Your task to perform on an android device: change your default location settings in chrome Image 0: 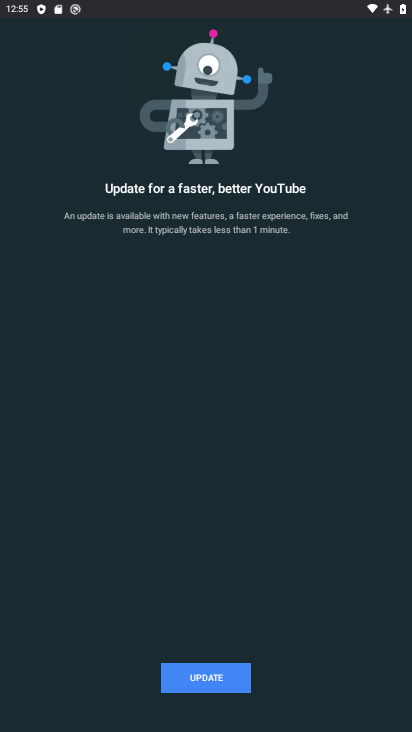
Step 0: press back button
Your task to perform on an android device: change your default location settings in chrome Image 1: 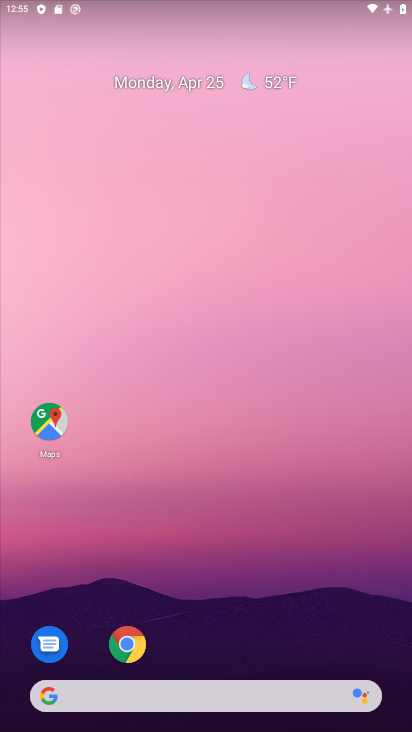
Step 1: click (131, 650)
Your task to perform on an android device: change your default location settings in chrome Image 2: 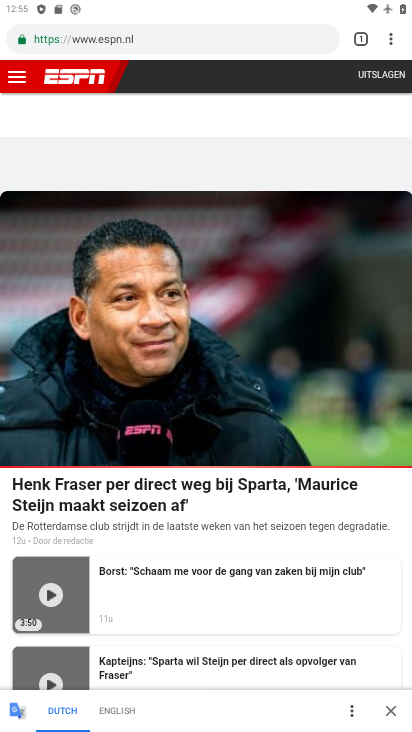
Step 2: click (394, 39)
Your task to perform on an android device: change your default location settings in chrome Image 3: 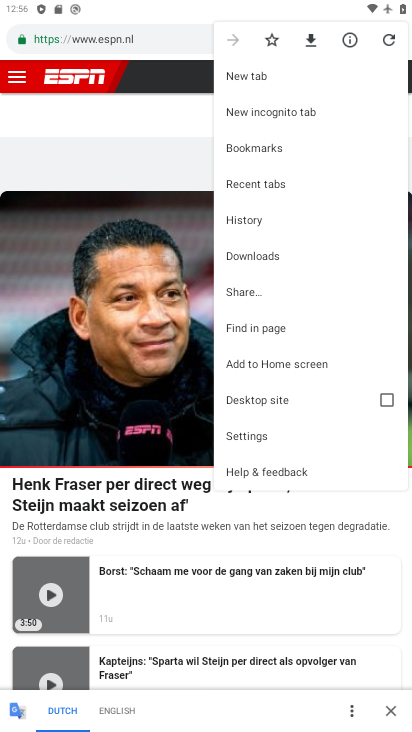
Step 3: click (255, 435)
Your task to perform on an android device: change your default location settings in chrome Image 4: 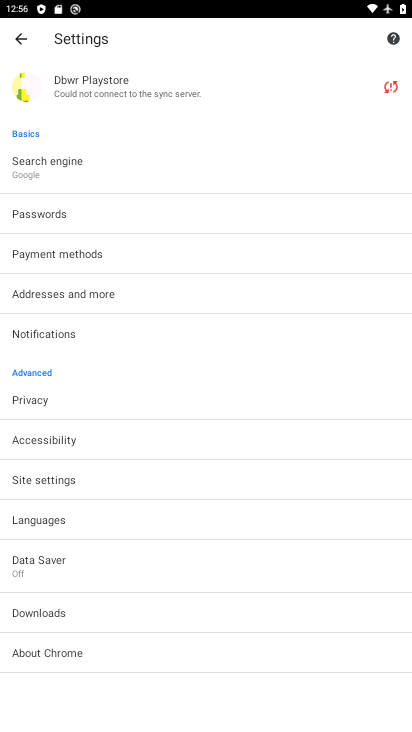
Step 4: click (119, 293)
Your task to perform on an android device: change your default location settings in chrome Image 5: 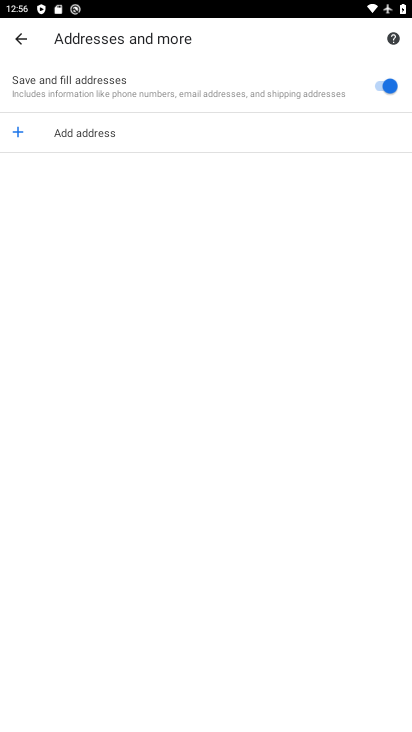
Step 5: task complete